Your task to perform on an android device: What's on my calendar today? Image 0: 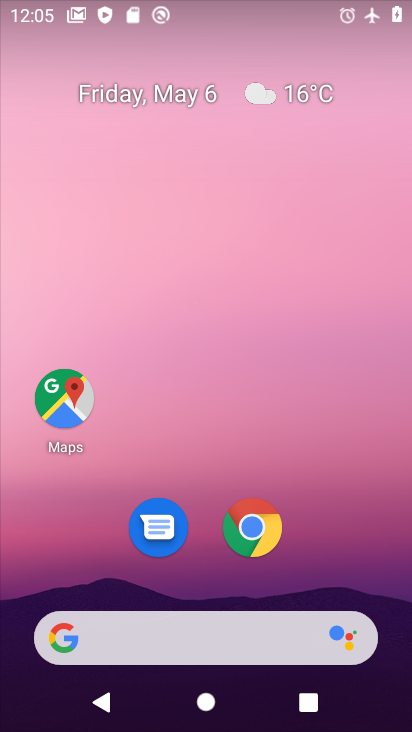
Step 0: drag from (269, 490) to (87, 139)
Your task to perform on an android device: What's on my calendar today? Image 1: 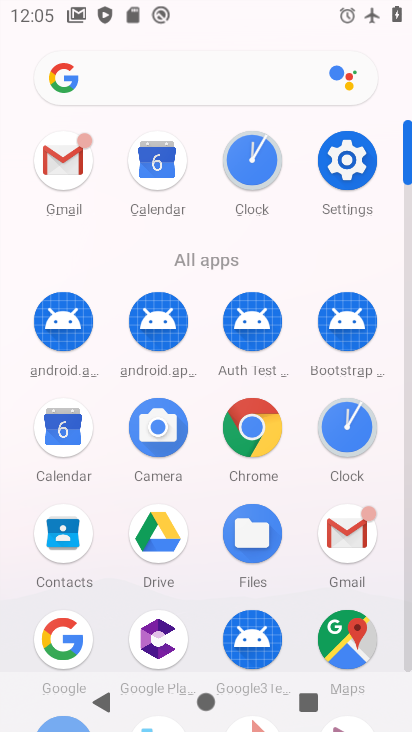
Step 1: click (159, 168)
Your task to perform on an android device: What's on my calendar today? Image 2: 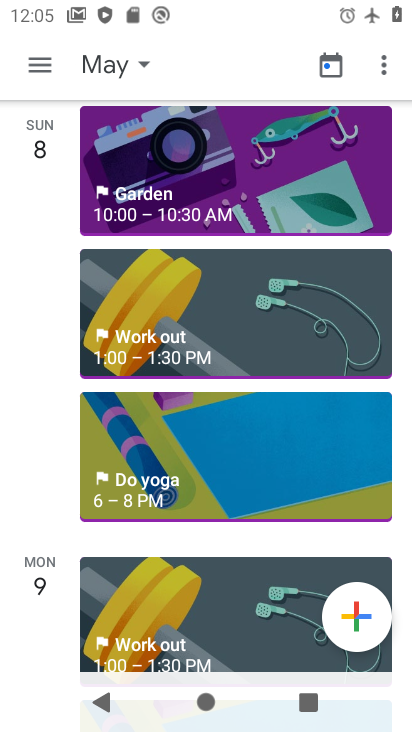
Step 2: task complete